Your task to perform on an android device: refresh tabs in the chrome app Image 0: 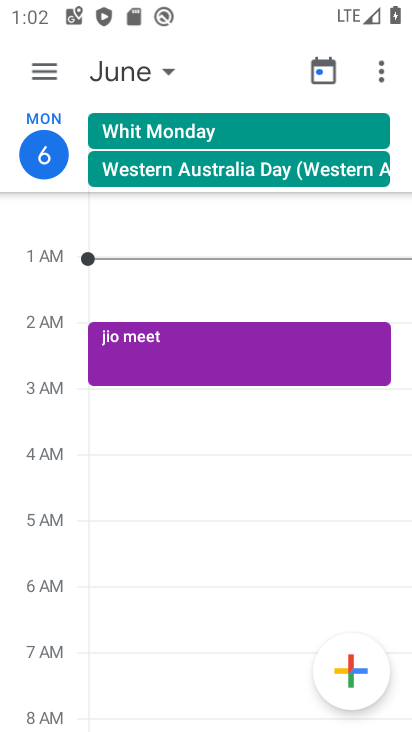
Step 0: press home button
Your task to perform on an android device: refresh tabs in the chrome app Image 1: 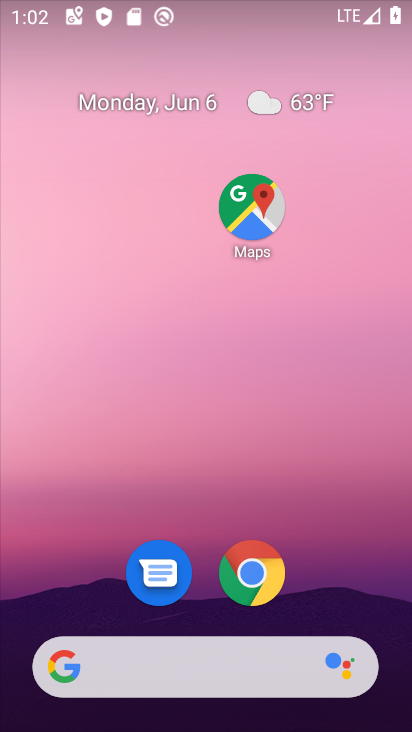
Step 1: drag from (216, 510) to (156, 5)
Your task to perform on an android device: refresh tabs in the chrome app Image 2: 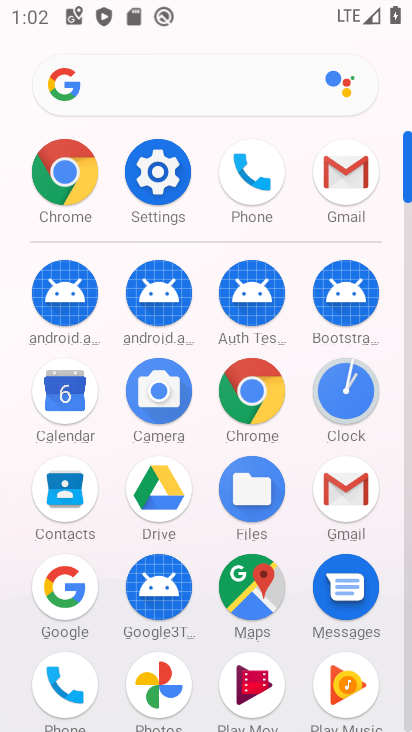
Step 2: click (255, 399)
Your task to perform on an android device: refresh tabs in the chrome app Image 3: 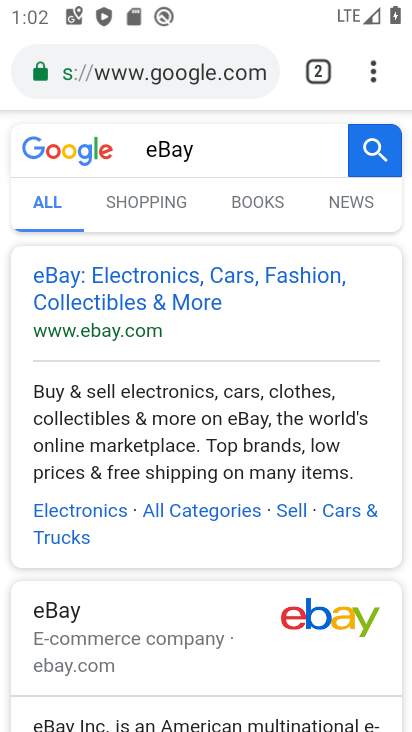
Step 3: click (381, 81)
Your task to perform on an android device: refresh tabs in the chrome app Image 4: 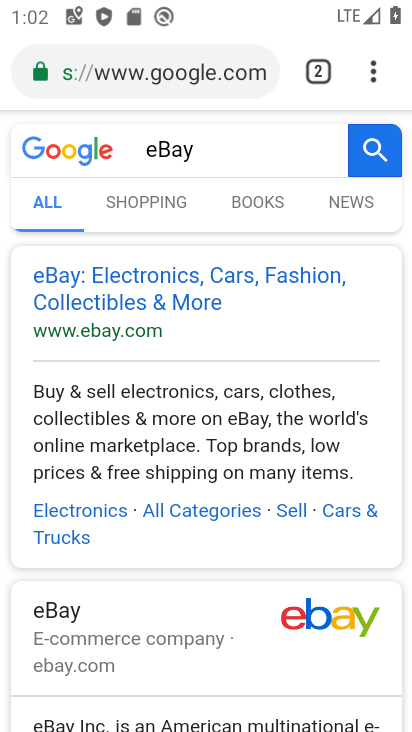
Step 4: click (379, 80)
Your task to perform on an android device: refresh tabs in the chrome app Image 5: 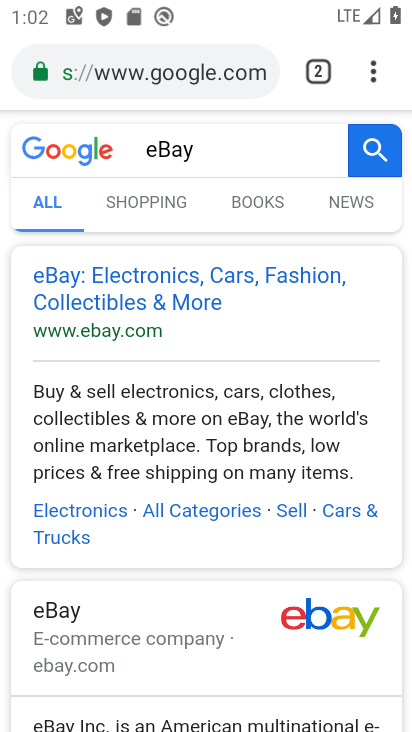
Step 5: click (376, 71)
Your task to perform on an android device: refresh tabs in the chrome app Image 6: 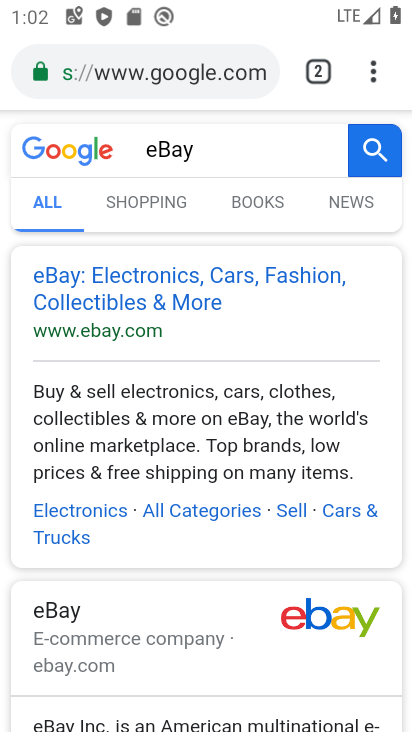
Step 6: click (373, 75)
Your task to perform on an android device: refresh tabs in the chrome app Image 7: 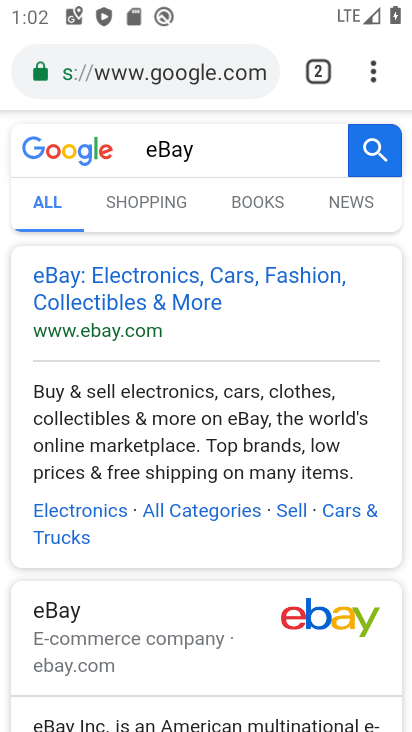
Step 7: click (372, 75)
Your task to perform on an android device: refresh tabs in the chrome app Image 8: 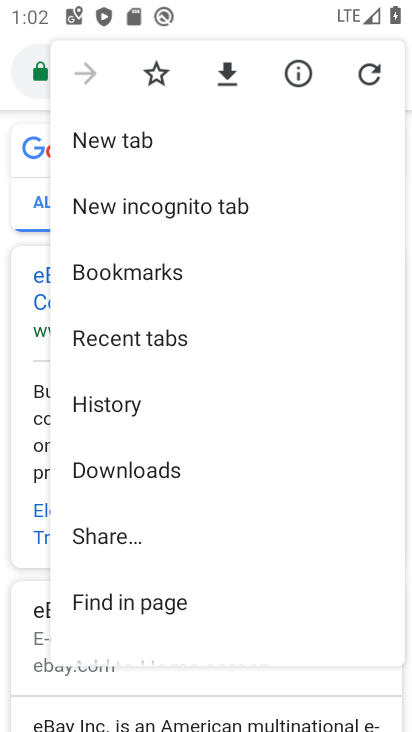
Step 8: click (363, 81)
Your task to perform on an android device: refresh tabs in the chrome app Image 9: 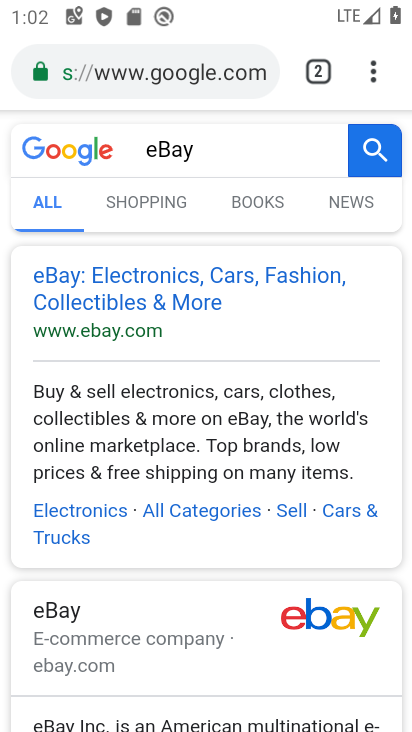
Step 9: task complete